Your task to perform on an android device: Go to wifi settings Image 0: 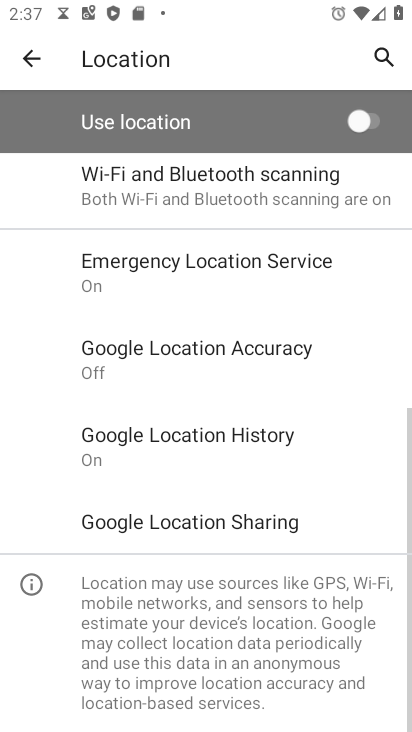
Step 0: press back button
Your task to perform on an android device: Go to wifi settings Image 1: 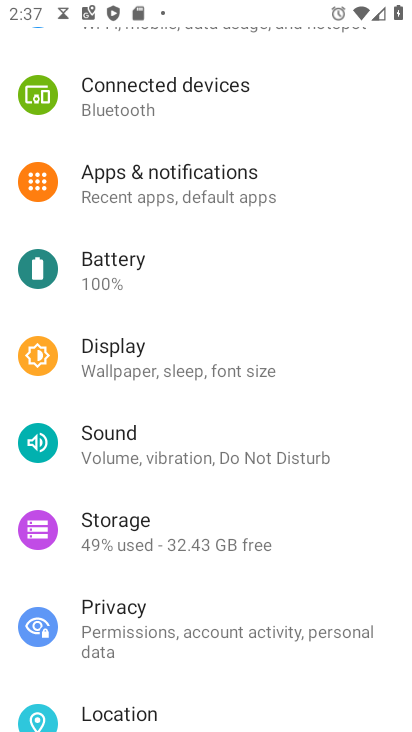
Step 1: drag from (233, 137) to (223, 599)
Your task to perform on an android device: Go to wifi settings Image 2: 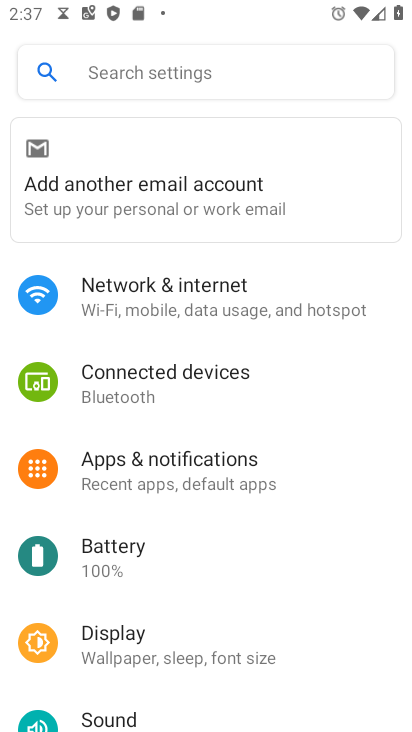
Step 2: click (225, 283)
Your task to perform on an android device: Go to wifi settings Image 3: 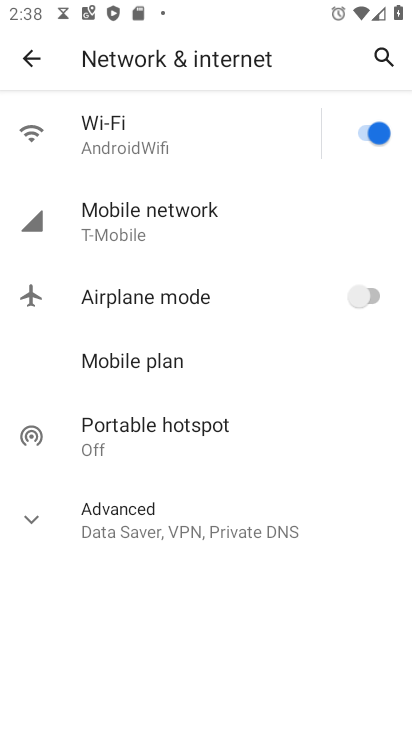
Step 3: click (160, 111)
Your task to perform on an android device: Go to wifi settings Image 4: 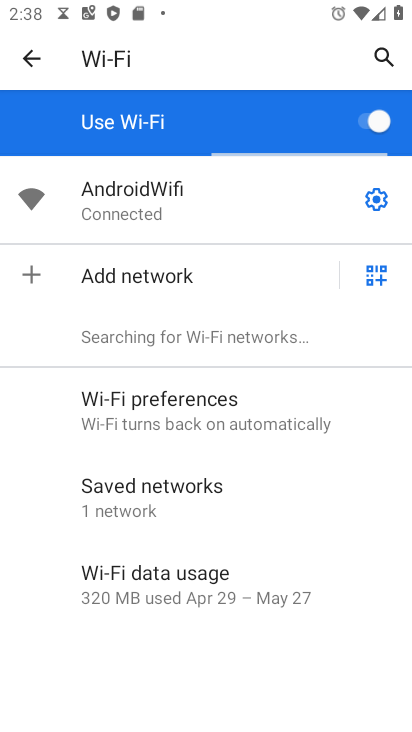
Step 4: task complete